Your task to perform on an android device: Search for pizza restaurants on Maps Image 0: 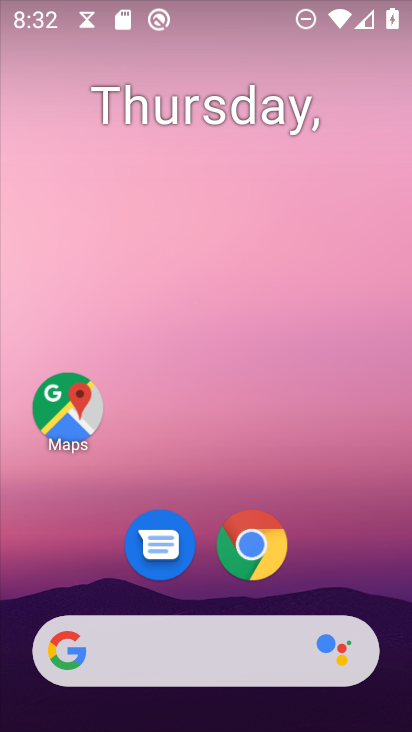
Step 0: click (66, 409)
Your task to perform on an android device: Search for pizza restaurants on Maps Image 1: 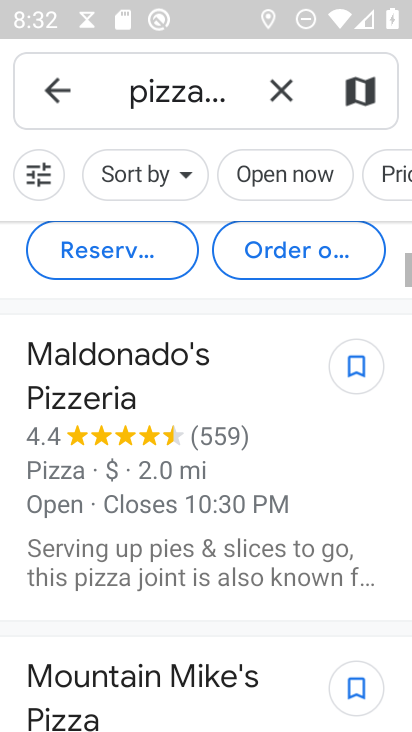
Step 1: click (287, 83)
Your task to perform on an android device: Search for pizza restaurants on Maps Image 2: 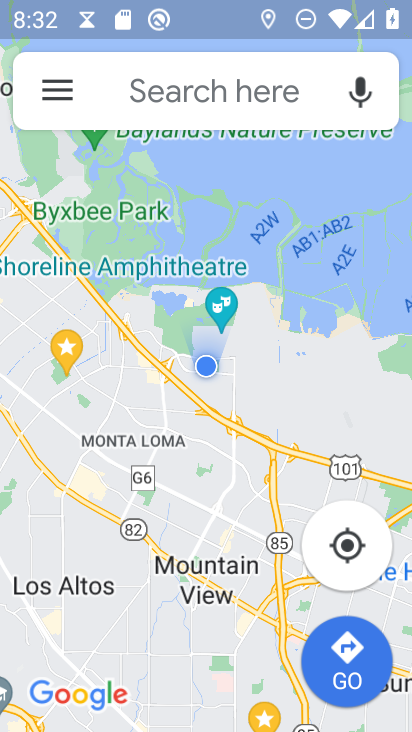
Step 2: click (196, 97)
Your task to perform on an android device: Search for pizza restaurants on Maps Image 3: 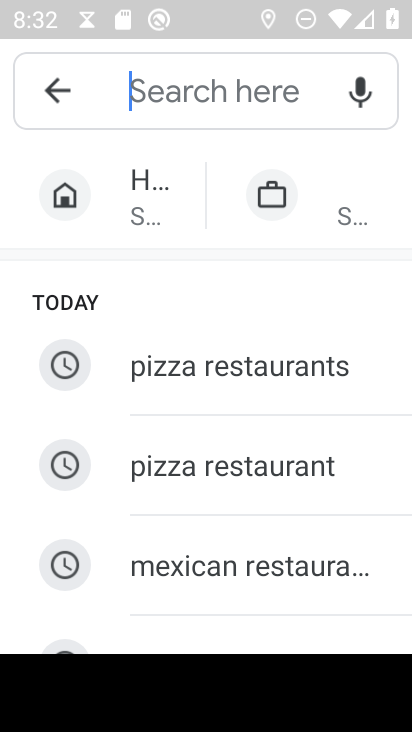
Step 3: type "pizza restaurants"
Your task to perform on an android device: Search for pizza restaurants on Maps Image 4: 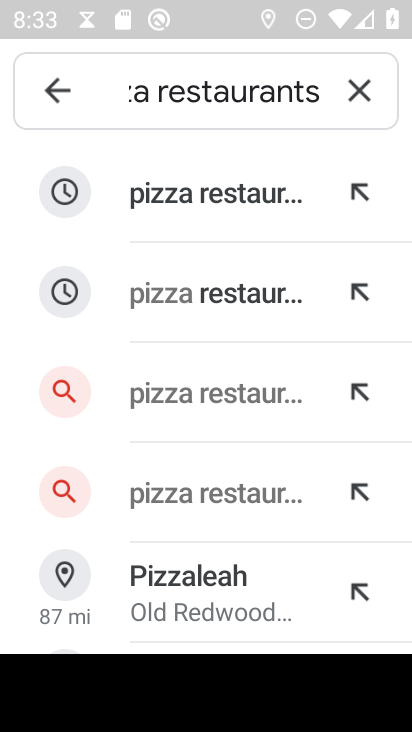
Step 4: click (238, 204)
Your task to perform on an android device: Search for pizza restaurants on Maps Image 5: 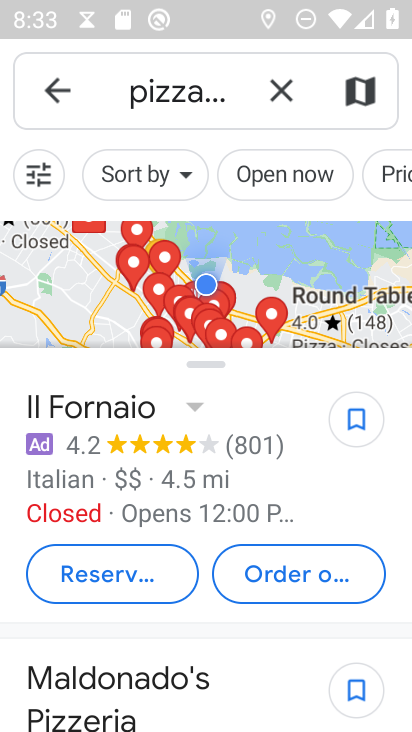
Step 5: task complete